Your task to perform on an android device: add a contact in the contacts app Image 0: 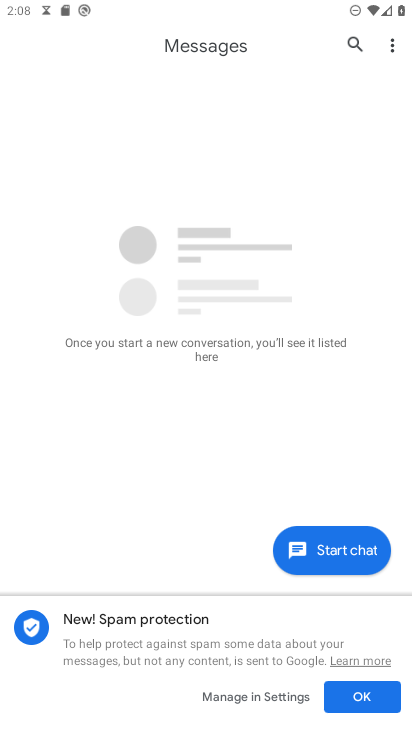
Step 0: press home button
Your task to perform on an android device: add a contact in the contacts app Image 1: 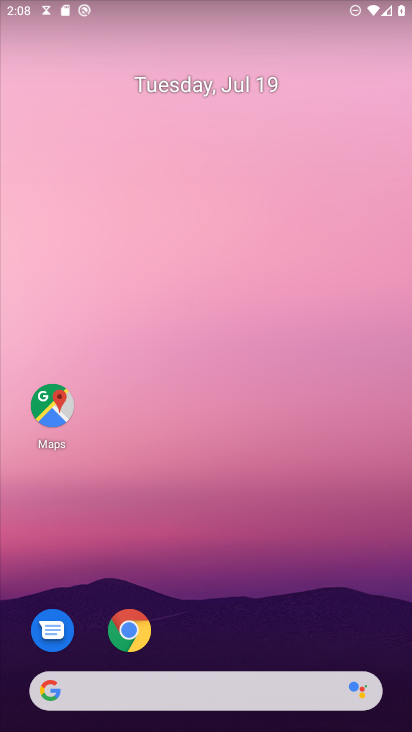
Step 1: drag from (136, 684) to (278, 130)
Your task to perform on an android device: add a contact in the contacts app Image 2: 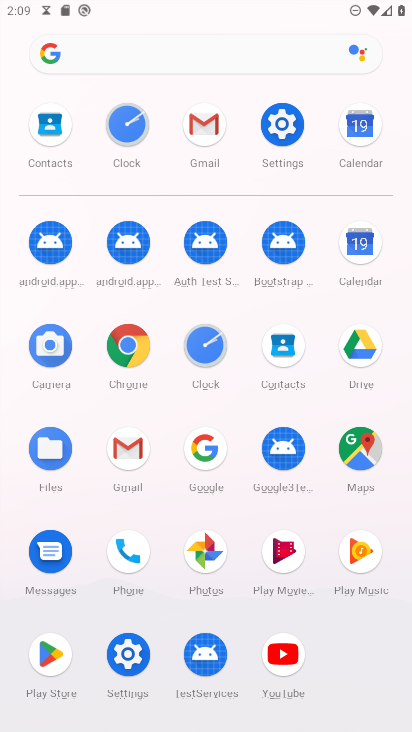
Step 2: click (286, 347)
Your task to perform on an android device: add a contact in the contacts app Image 3: 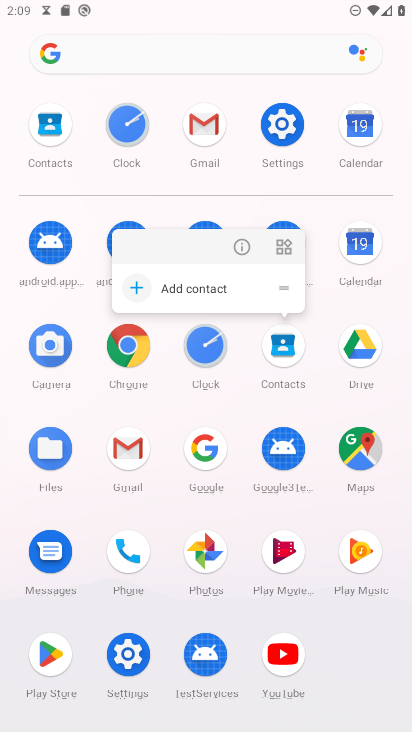
Step 3: click (289, 359)
Your task to perform on an android device: add a contact in the contacts app Image 4: 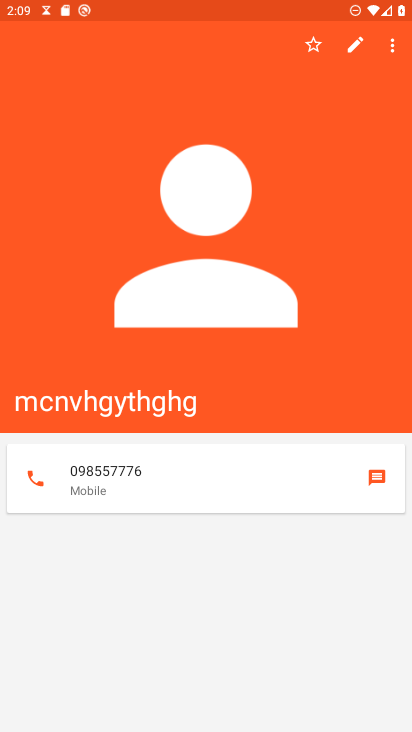
Step 4: press back button
Your task to perform on an android device: add a contact in the contacts app Image 5: 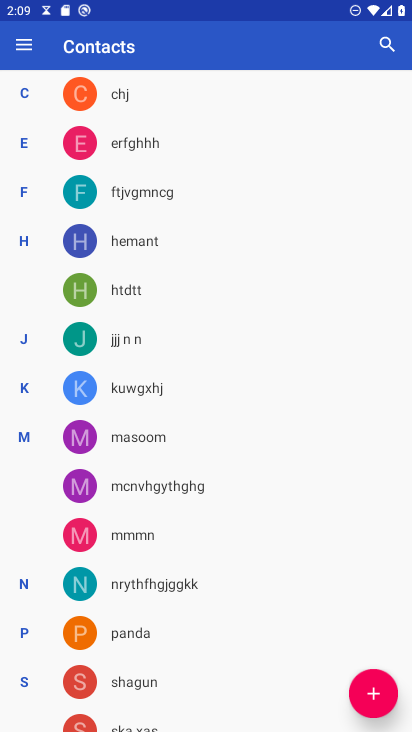
Step 5: click (366, 688)
Your task to perform on an android device: add a contact in the contacts app Image 6: 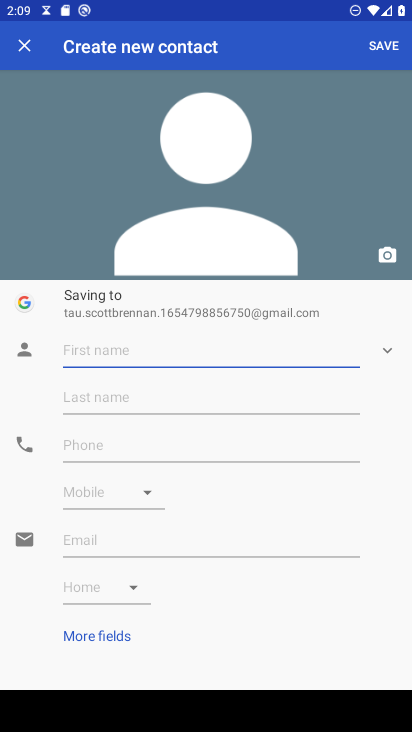
Step 6: type ""
Your task to perform on an android device: add a contact in the contacts app Image 7: 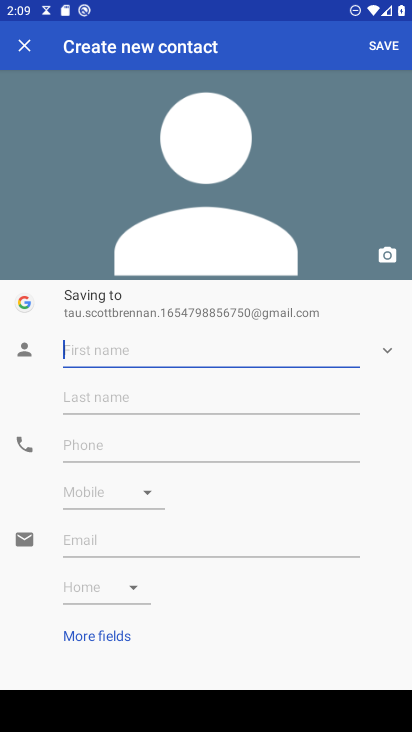
Step 7: type "dytggbvvnn"
Your task to perform on an android device: add a contact in the contacts app Image 8: 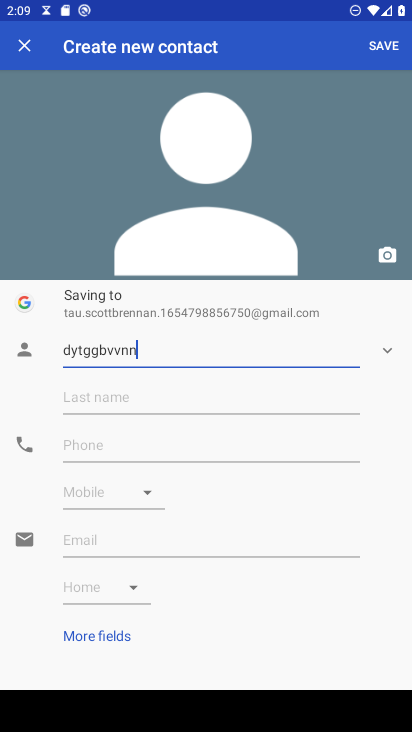
Step 8: click (95, 439)
Your task to perform on an android device: add a contact in the contacts app Image 9: 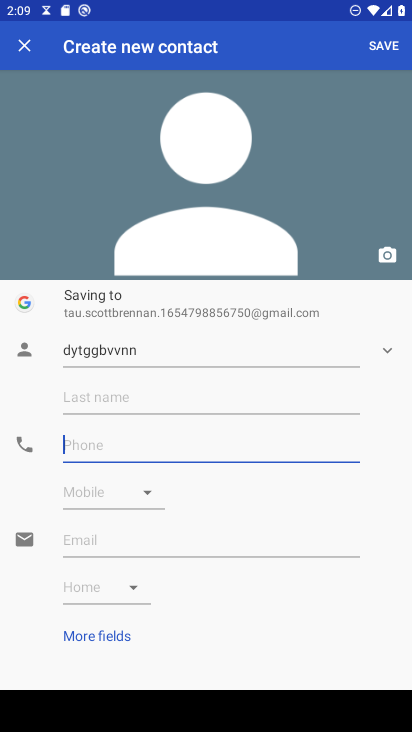
Step 9: type "24776555888"
Your task to perform on an android device: add a contact in the contacts app Image 10: 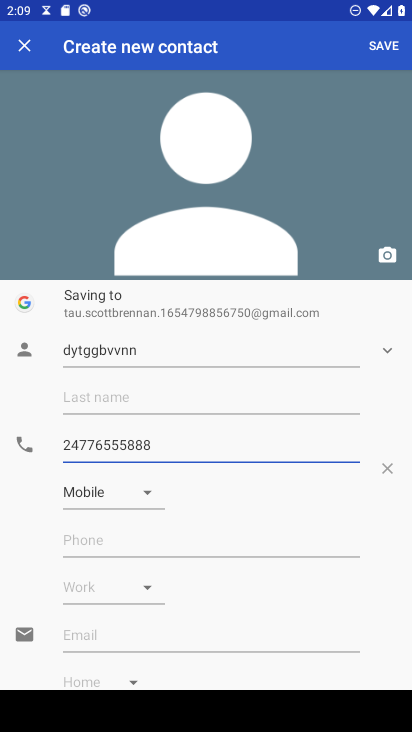
Step 10: click (390, 46)
Your task to perform on an android device: add a contact in the contacts app Image 11: 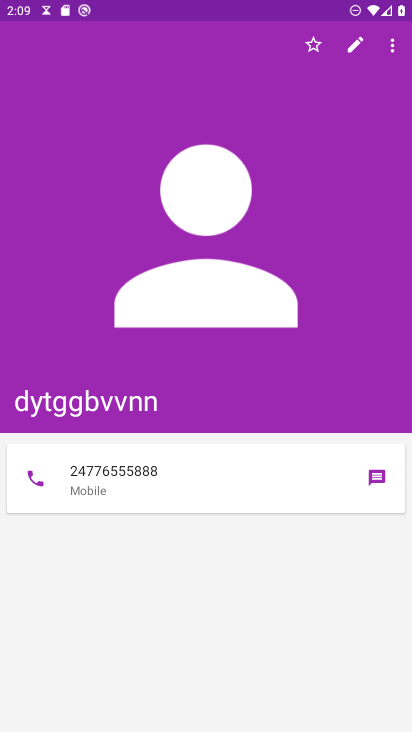
Step 11: task complete